Your task to perform on an android device: allow notifications from all sites in the chrome app Image 0: 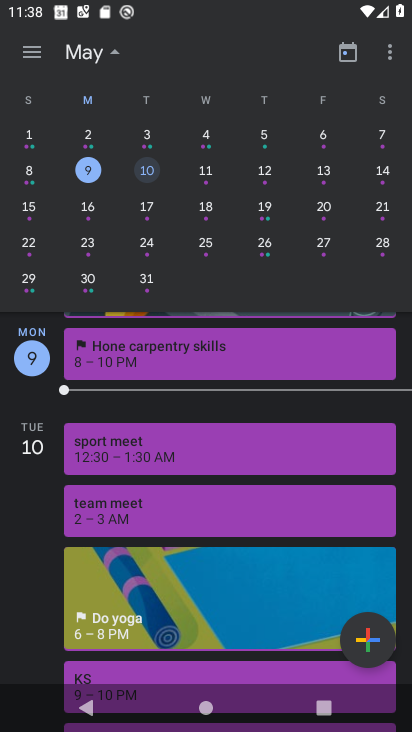
Step 0: press home button
Your task to perform on an android device: allow notifications from all sites in the chrome app Image 1: 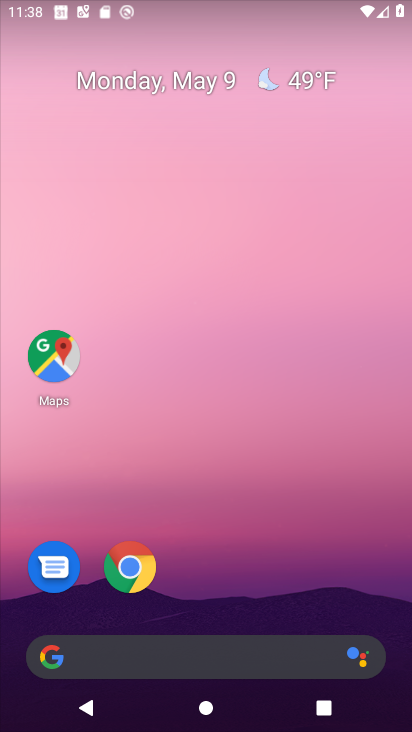
Step 1: click (131, 574)
Your task to perform on an android device: allow notifications from all sites in the chrome app Image 2: 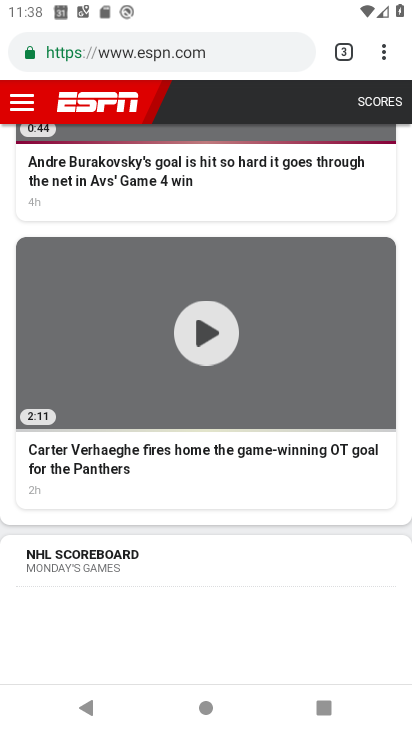
Step 2: click (389, 47)
Your task to perform on an android device: allow notifications from all sites in the chrome app Image 3: 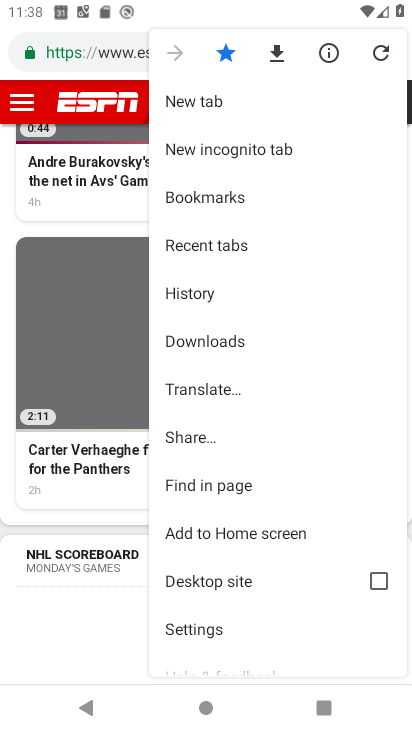
Step 3: click (201, 629)
Your task to perform on an android device: allow notifications from all sites in the chrome app Image 4: 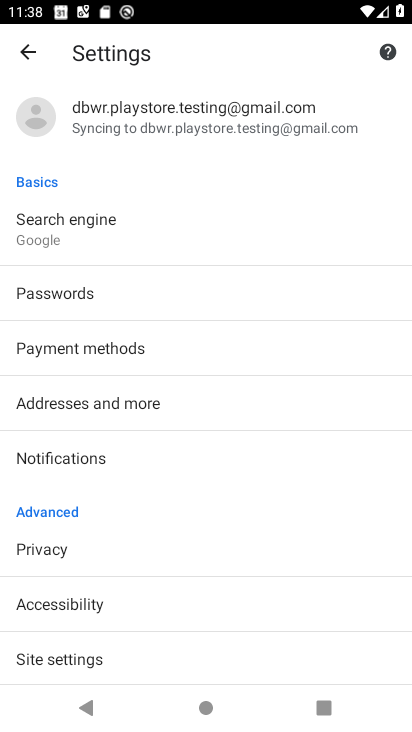
Step 4: click (105, 649)
Your task to perform on an android device: allow notifications from all sites in the chrome app Image 5: 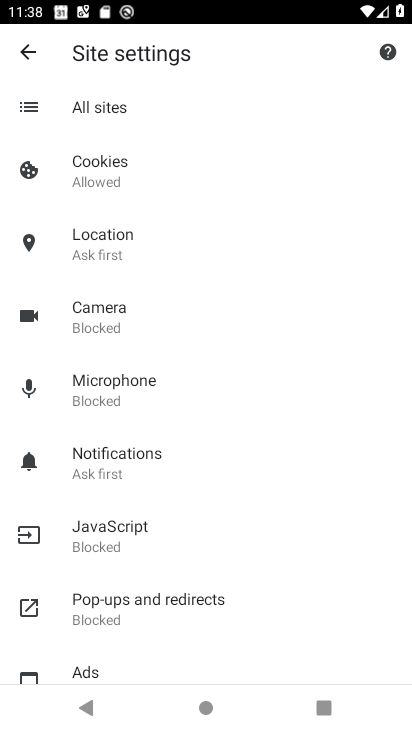
Step 5: click (117, 444)
Your task to perform on an android device: allow notifications from all sites in the chrome app Image 6: 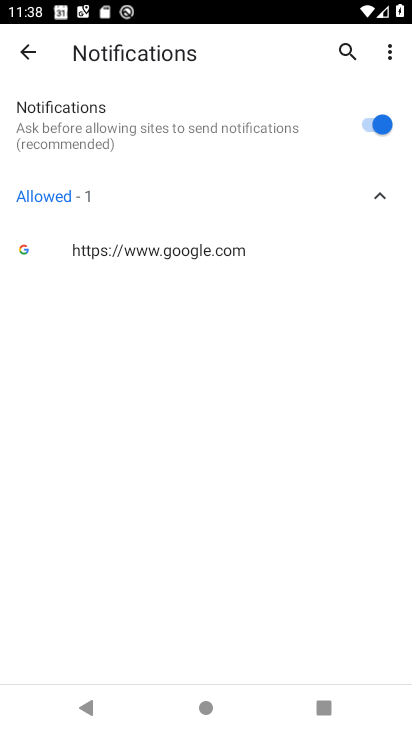
Step 6: task complete